Your task to perform on an android device: toggle notifications settings in the gmail app Image 0: 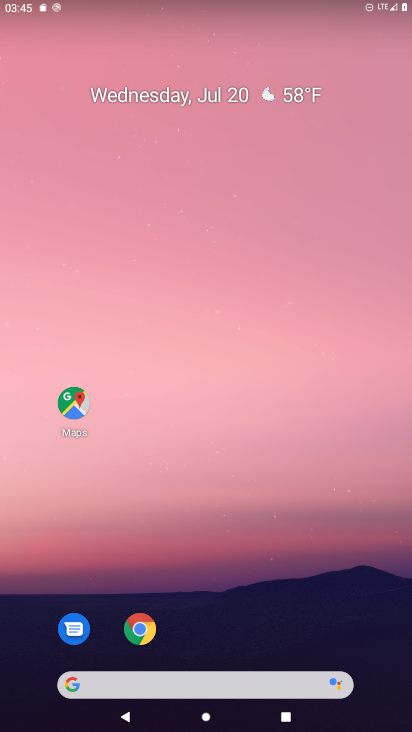
Step 0: drag from (300, 558) to (305, 7)
Your task to perform on an android device: toggle notifications settings in the gmail app Image 1: 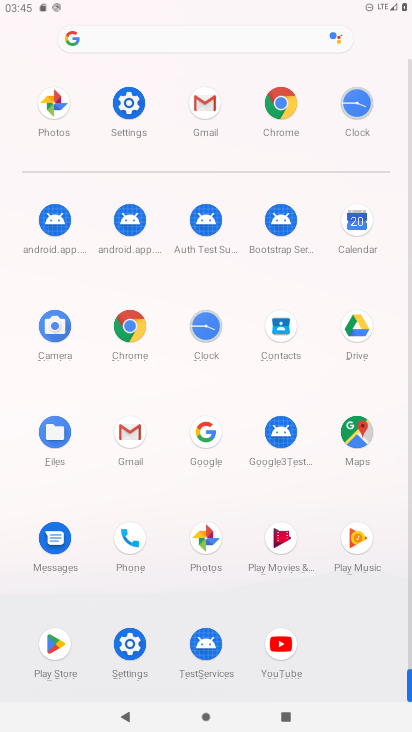
Step 1: click (133, 433)
Your task to perform on an android device: toggle notifications settings in the gmail app Image 2: 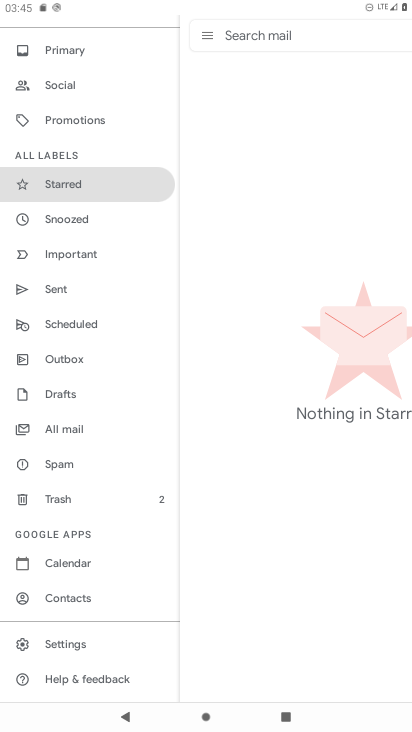
Step 2: press home button
Your task to perform on an android device: toggle notifications settings in the gmail app Image 3: 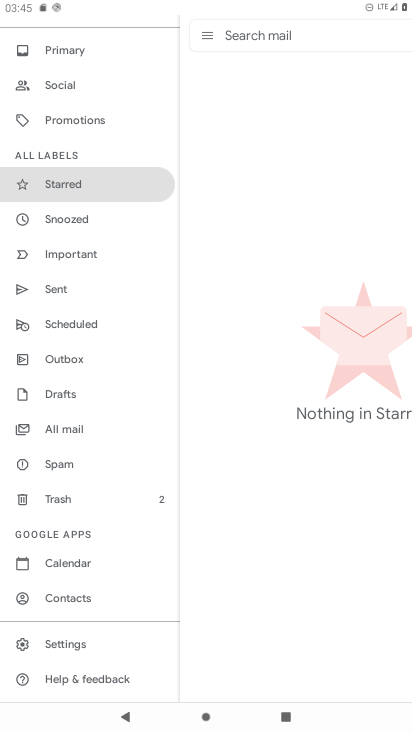
Step 3: drag from (311, 693) to (311, 11)
Your task to perform on an android device: toggle notifications settings in the gmail app Image 4: 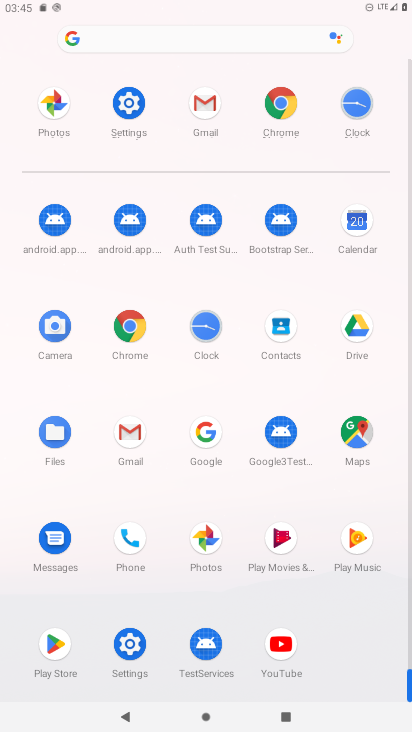
Step 4: click (123, 430)
Your task to perform on an android device: toggle notifications settings in the gmail app Image 5: 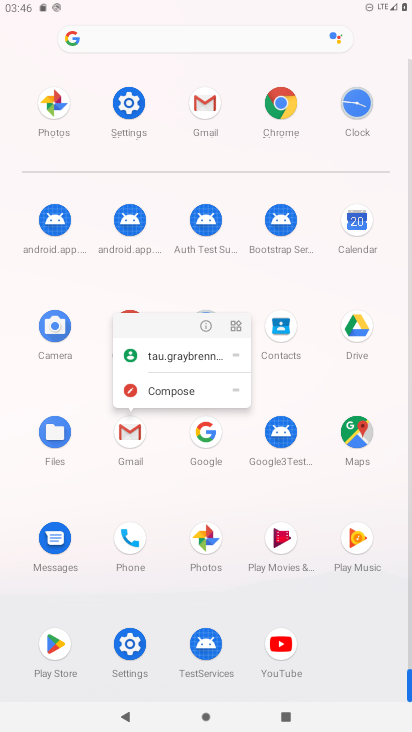
Step 5: click (196, 330)
Your task to perform on an android device: toggle notifications settings in the gmail app Image 6: 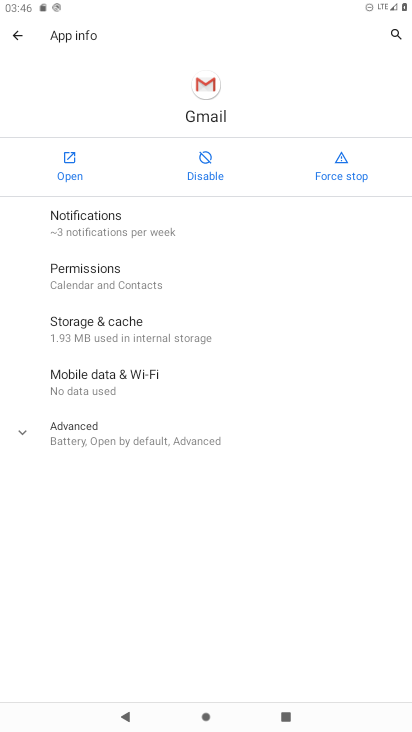
Step 6: click (150, 222)
Your task to perform on an android device: toggle notifications settings in the gmail app Image 7: 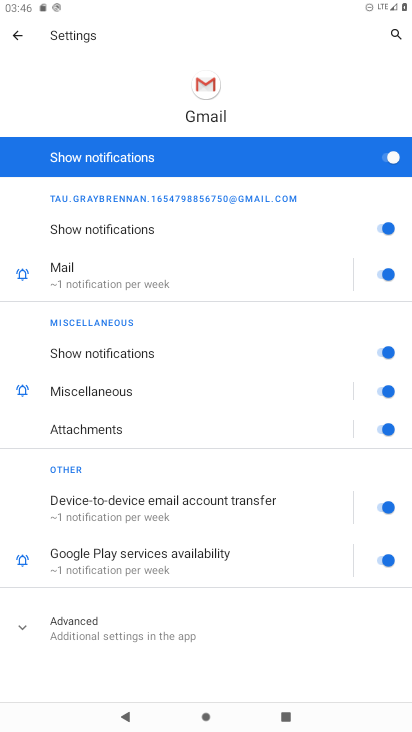
Step 7: click (175, 164)
Your task to perform on an android device: toggle notifications settings in the gmail app Image 8: 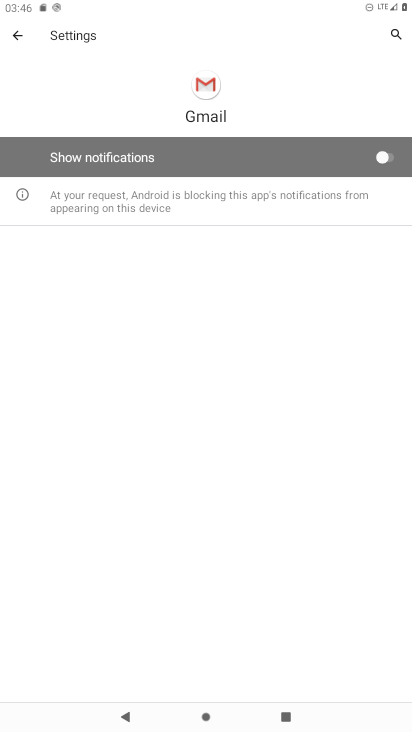
Step 8: task complete